Your task to perform on an android device: uninstall "LiveIn - Share Your Moment" Image 0: 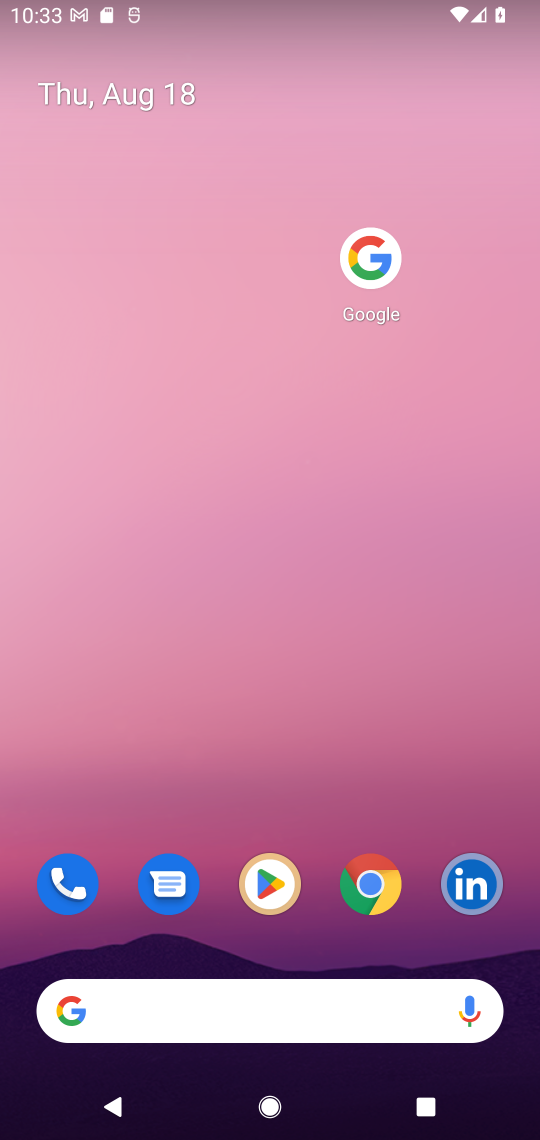
Step 0: click (256, 882)
Your task to perform on an android device: uninstall "LiveIn - Share Your Moment" Image 1: 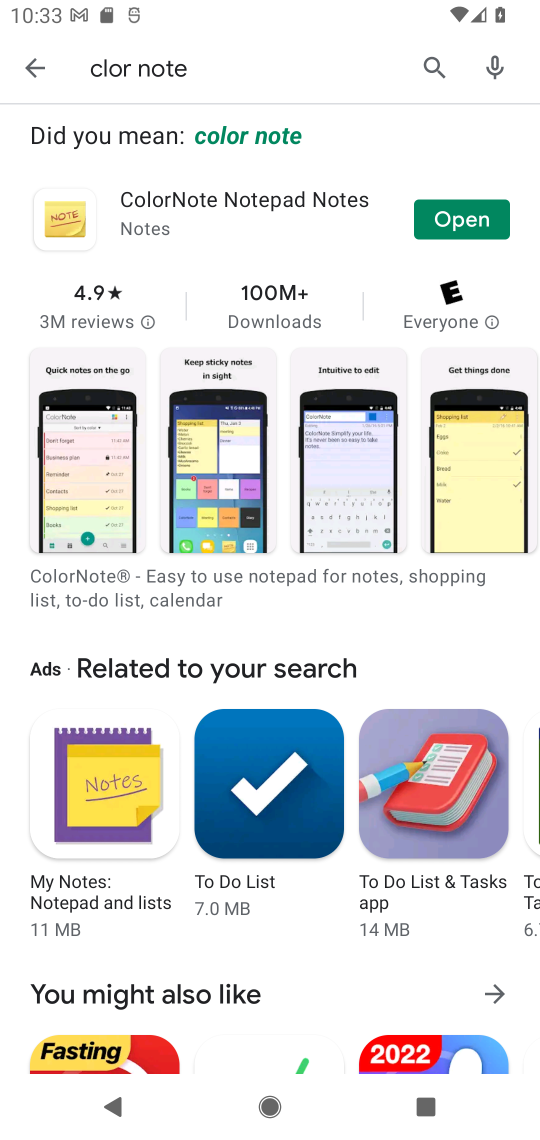
Step 1: click (424, 72)
Your task to perform on an android device: uninstall "LiveIn - Share Your Moment" Image 2: 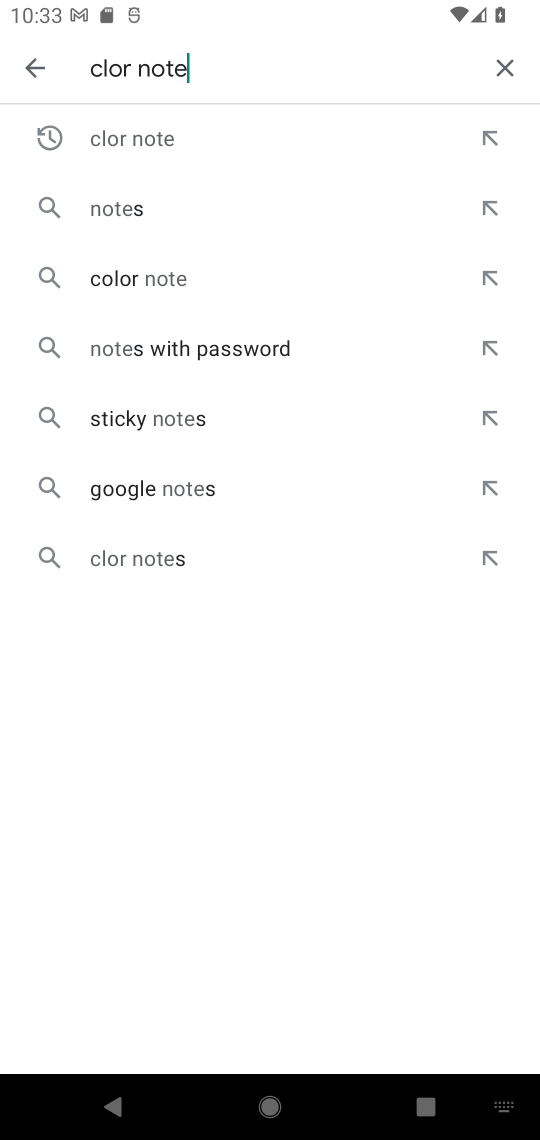
Step 2: click (498, 68)
Your task to perform on an android device: uninstall "LiveIn - Share Your Moment" Image 3: 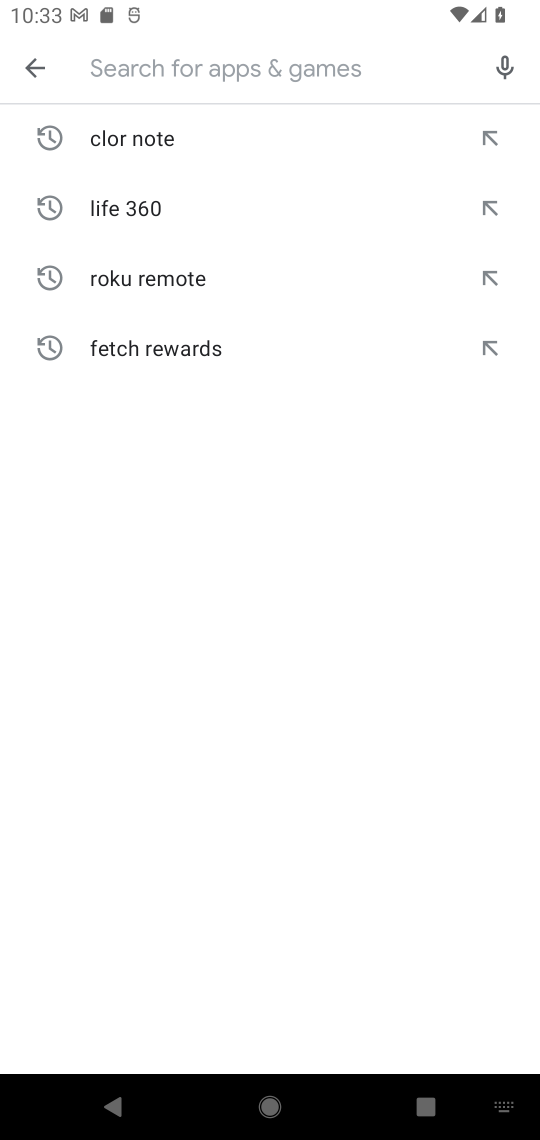
Step 3: type "livein"
Your task to perform on an android device: uninstall "LiveIn - Share Your Moment" Image 4: 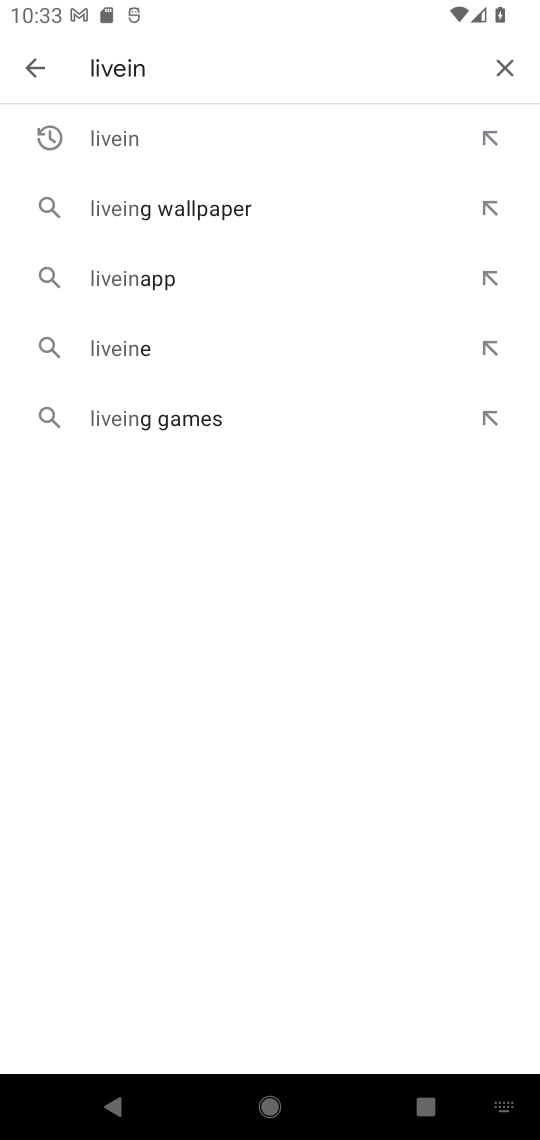
Step 4: click (163, 146)
Your task to perform on an android device: uninstall "LiveIn - Share Your Moment" Image 5: 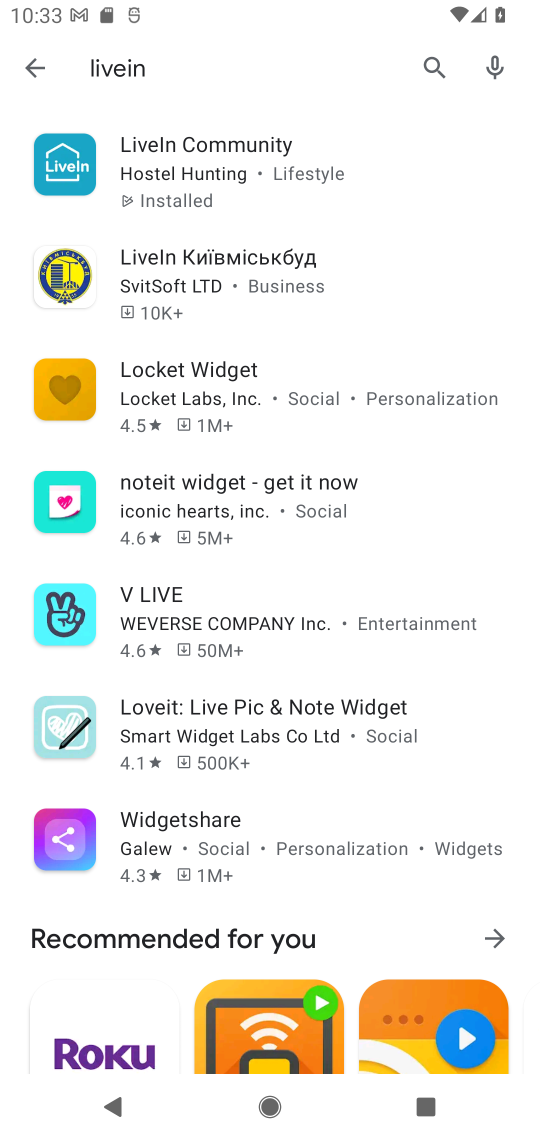
Step 5: task complete